Your task to perform on an android device: Go to network settings Image 0: 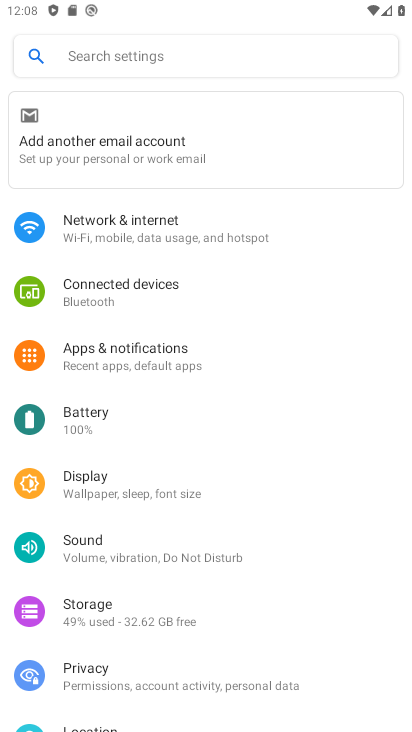
Step 0: press home button
Your task to perform on an android device: Go to network settings Image 1: 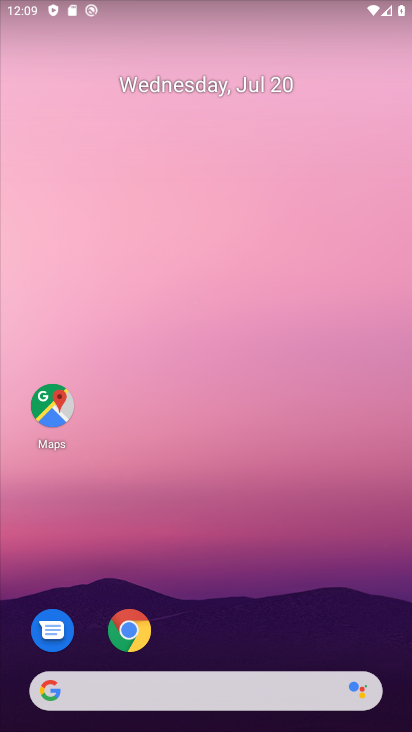
Step 1: drag from (26, 582) to (267, 75)
Your task to perform on an android device: Go to network settings Image 2: 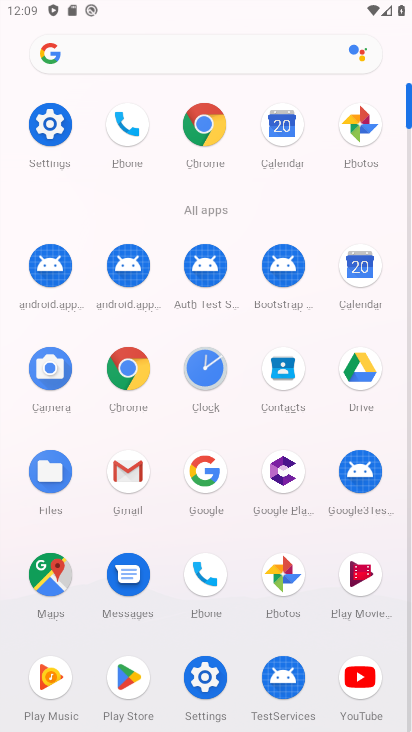
Step 2: click (55, 129)
Your task to perform on an android device: Go to network settings Image 3: 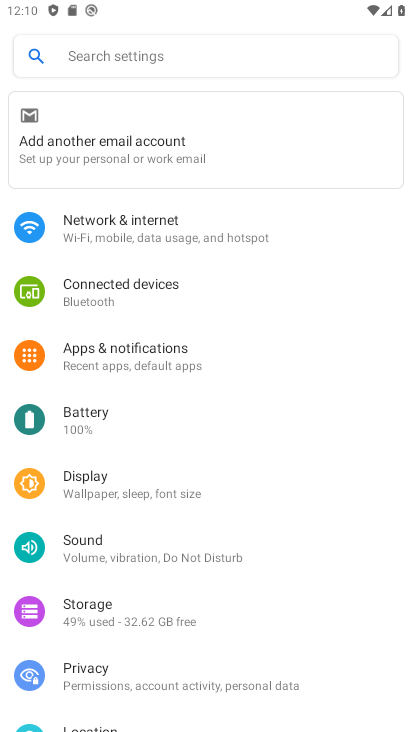
Step 3: click (151, 240)
Your task to perform on an android device: Go to network settings Image 4: 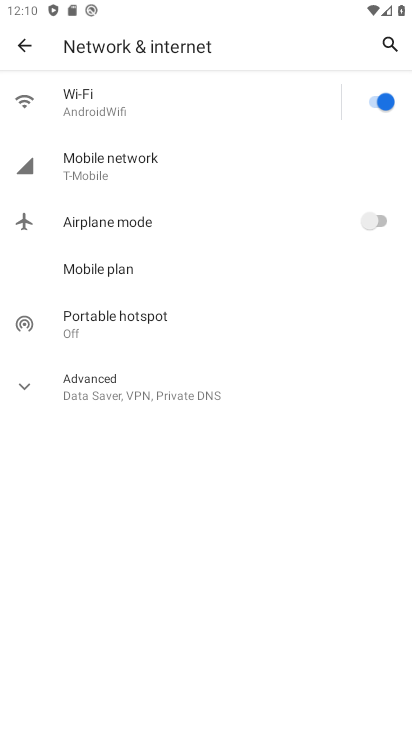
Step 4: click (135, 174)
Your task to perform on an android device: Go to network settings Image 5: 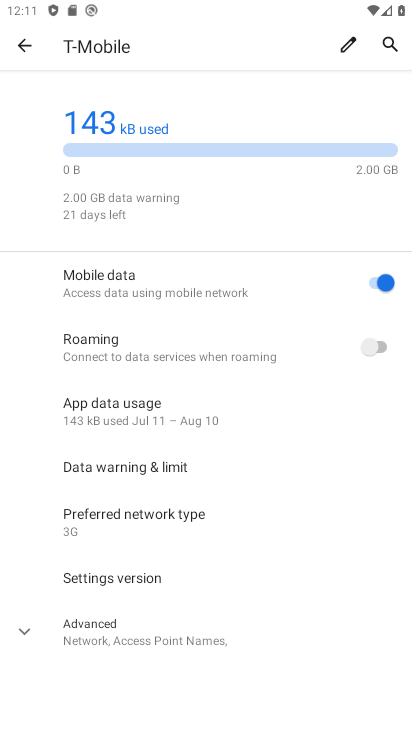
Step 5: task complete